Your task to perform on an android device: turn notification dots on Image 0: 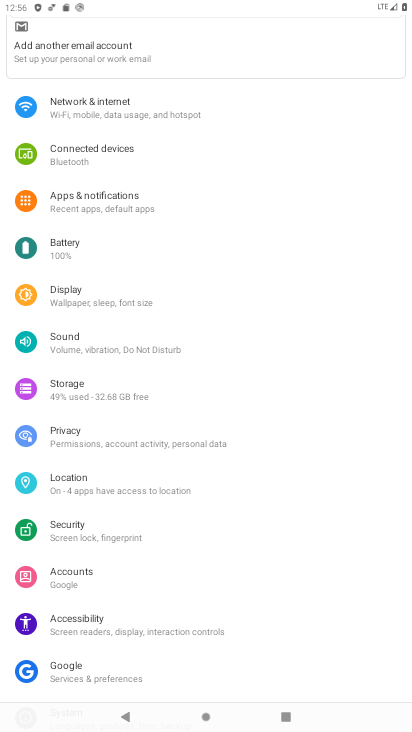
Step 0: press home button
Your task to perform on an android device: turn notification dots on Image 1: 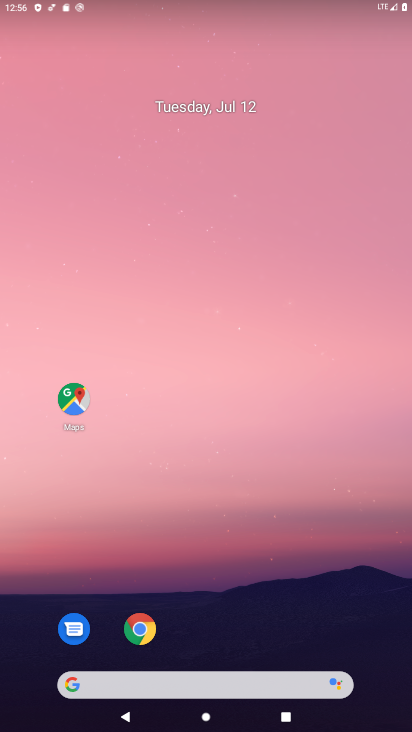
Step 1: drag from (264, 707) to (274, 22)
Your task to perform on an android device: turn notification dots on Image 2: 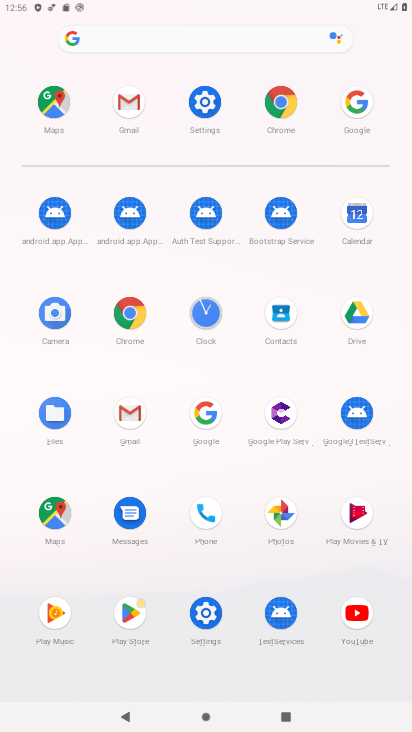
Step 2: click (211, 111)
Your task to perform on an android device: turn notification dots on Image 3: 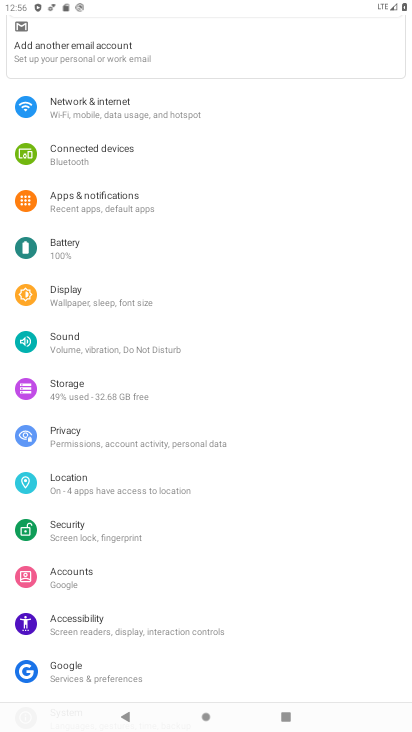
Step 3: click (110, 194)
Your task to perform on an android device: turn notification dots on Image 4: 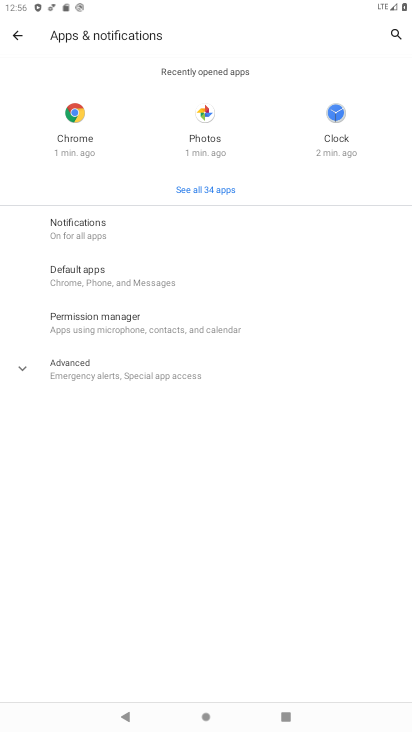
Step 4: click (97, 224)
Your task to perform on an android device: turn notification dots on Image 5: 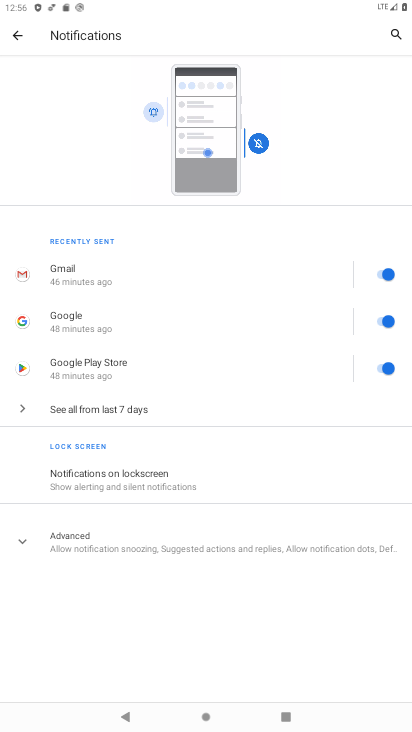
Step 5: click (142, 550)
Your task to perform on an android device: turn notification dots on Image 6: 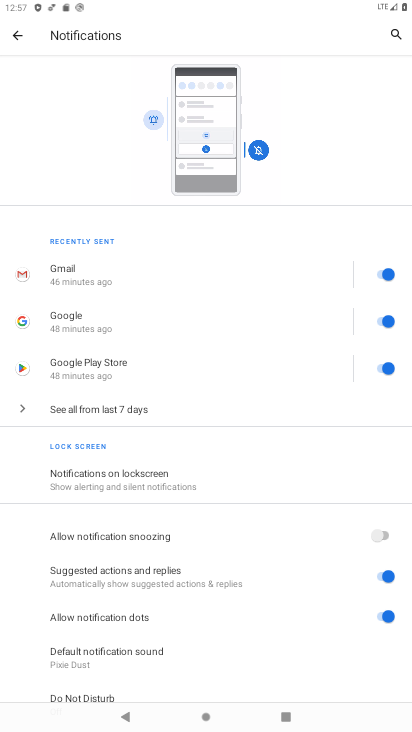
Step 6: task complete